Your task to perform on an android device: Open settings Image 0: 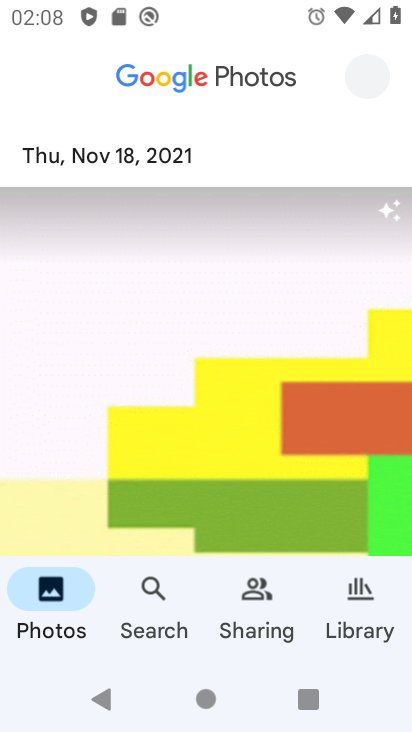
Step 0: press home button
Your task to perform on an android device: Open settings Image 1: 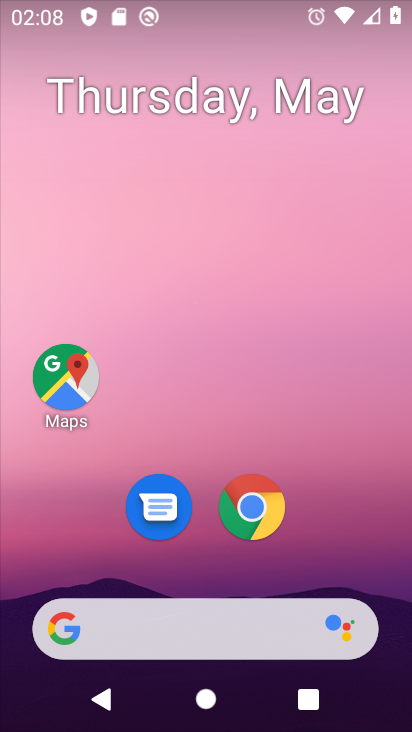
Step 1: drag from (394, 550) to (326, 146)
Your task to perform on an android device: Open settings Image 2: 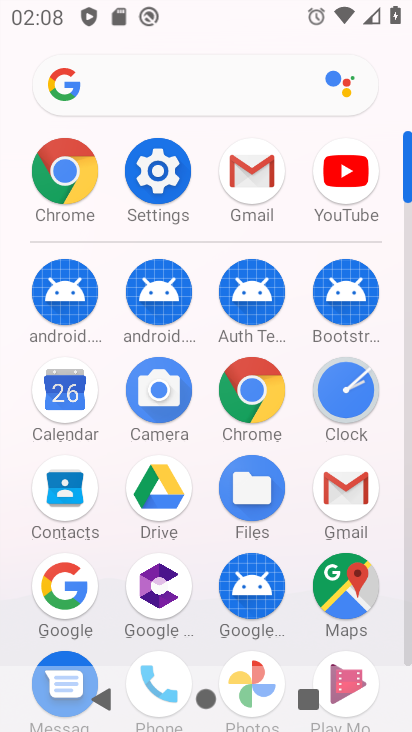
Step 2: click (174, 194)
Your task to perform on an android device: Open settings Image 3: 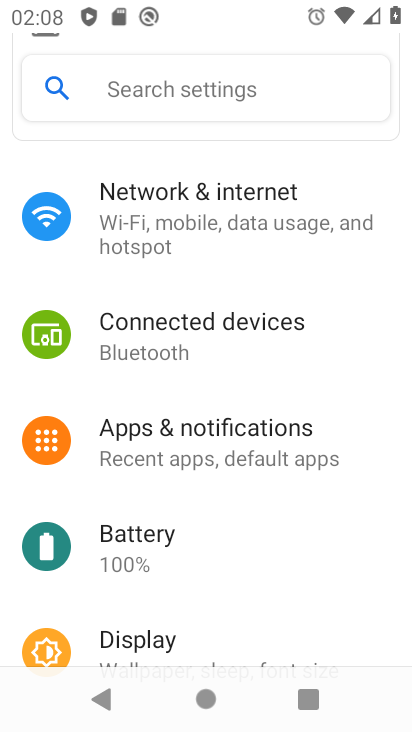
Step 3: task complete